Your task to perform on an android device: Open Google Chrome and click the shortcut for Amazon.com Image 0: 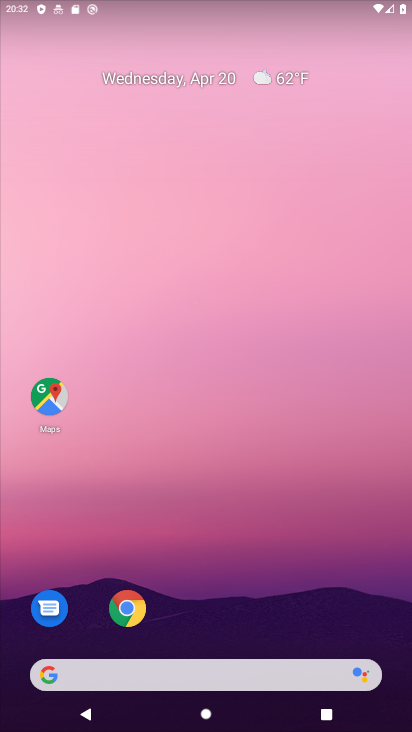
Step 0: click (105, 621)
Your task to perform on an android device: Open Google Chrome and click the shortcut for Amazon.com Image 1: 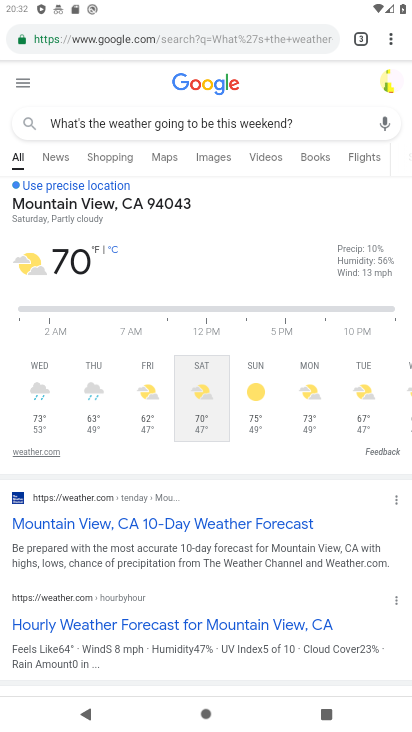
Step 1: drag from (392, 39) to (291, 77)
Your task to perform on an android device: Open Google Chrome and click the shortcut for Amazon.com Image 2: 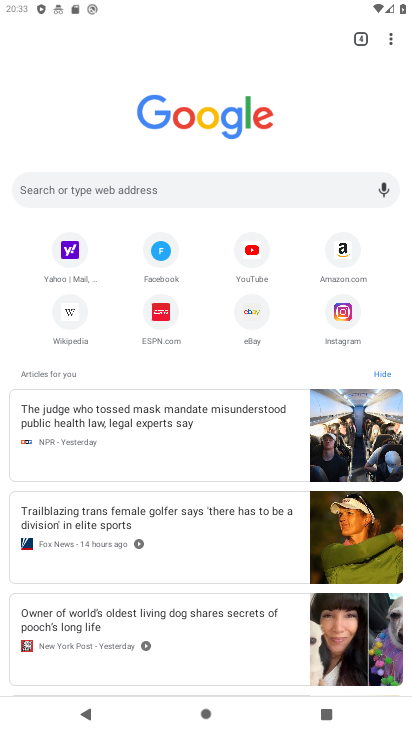
Step 2: click (333, 255)
Your task to perform on an android device: Open Google Chrome and click the shortcut for Amazon.com Image 3: 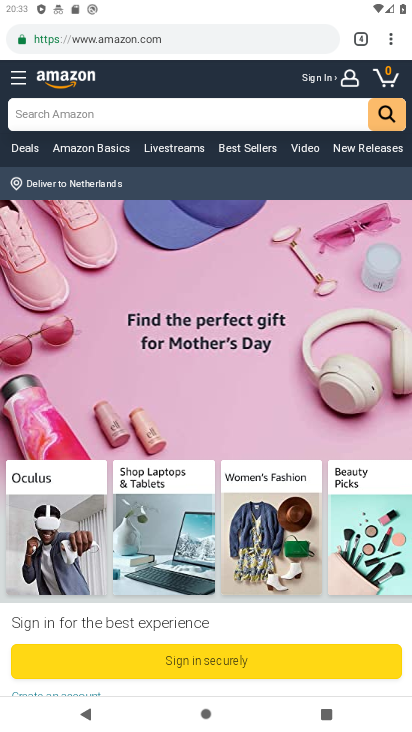
Step 3: task complete